Your task to perform on an android device: open app "eBay: The shopping marketplace" Image 0: 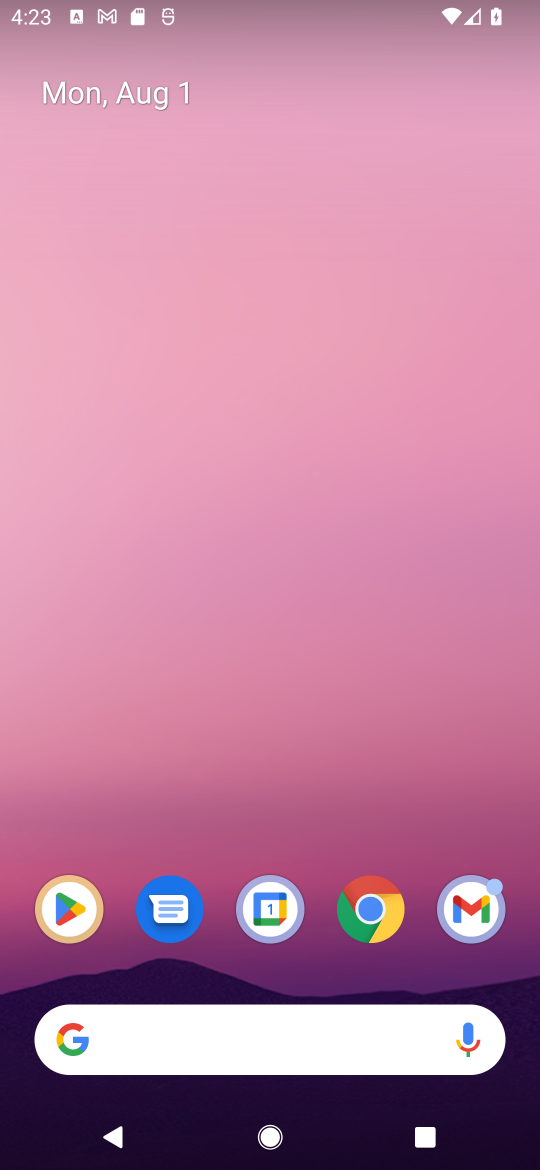
Step 0: click (74, 902)
Your task to perform on an android device: open app "eBay: The shopping marketplace" Image 1: 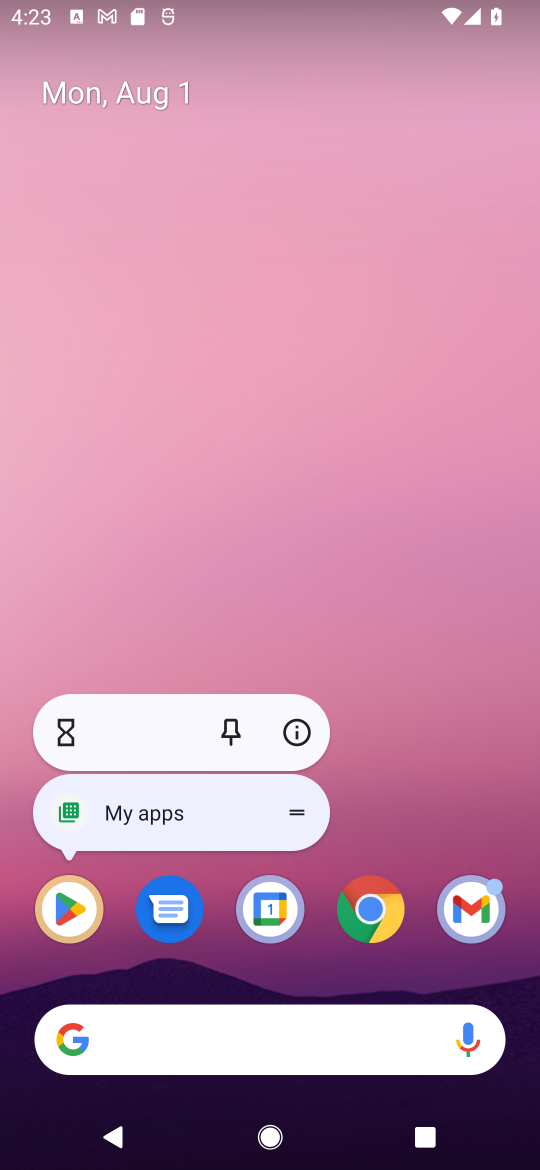
Step 1: click (72, 916)
Your task to perform on an android device: open app "eBay: The shopping marketplace" Image 2: 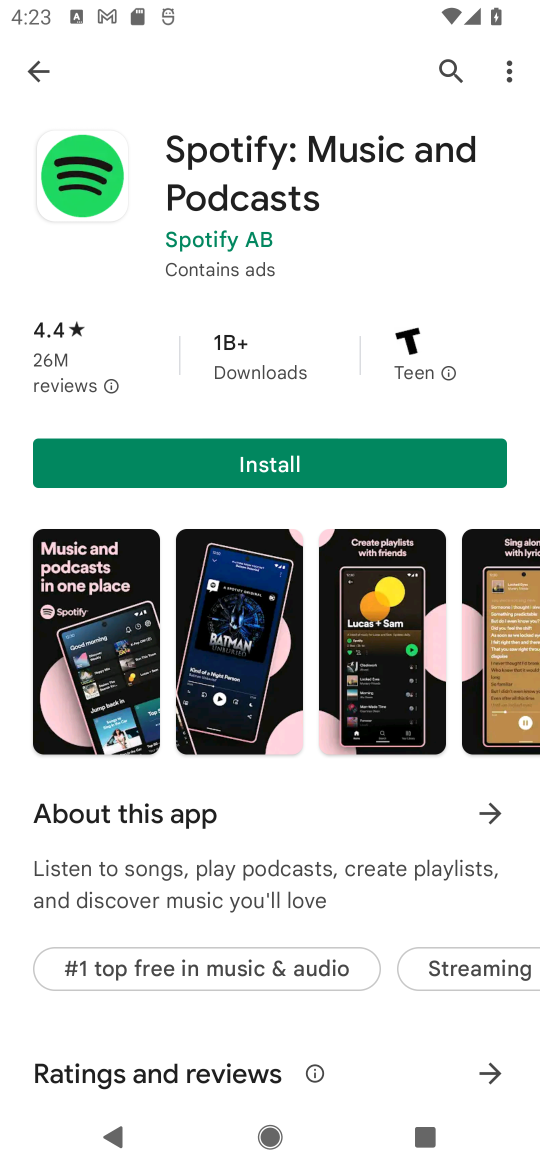
Step 2: click (38, 65)
Your task to perform on an android device: open app "eBay: The shopping marketplace" Image 3: 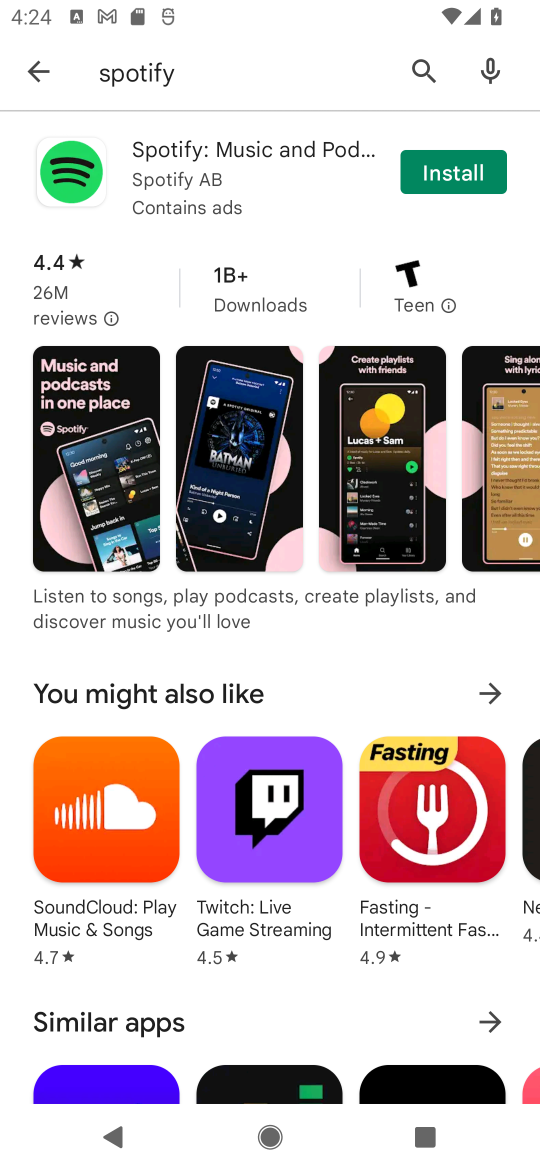
Step 3: click (252, 74)
Your task to perform on an android device: open app "eBay: The shopping marketplace" Image 4: 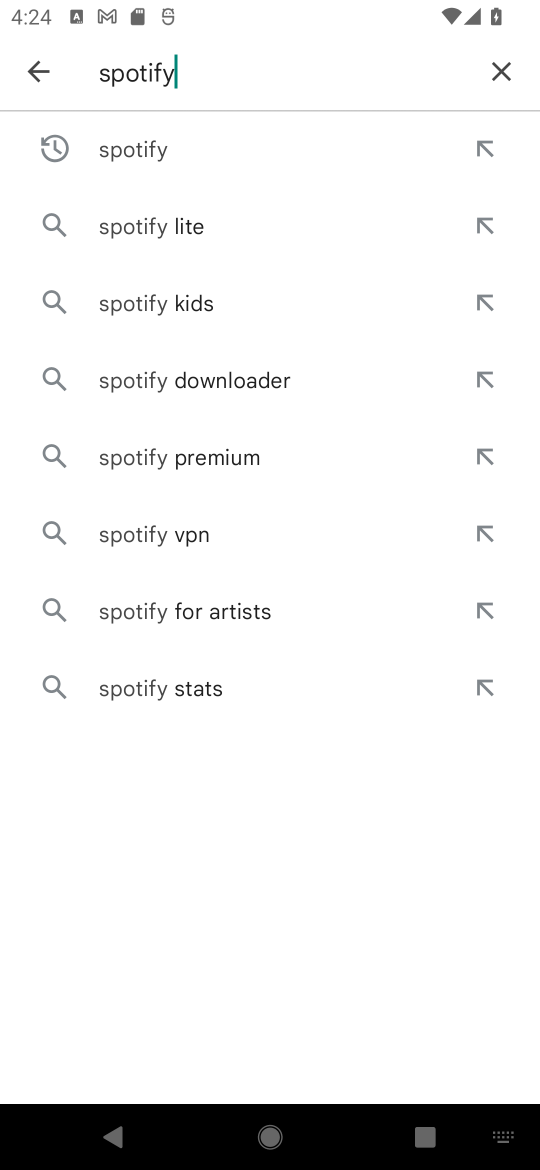
Step 4: click (498, 70)
Your task to perform on an android device: open app "eBay: The shopping marketplace" Image 5: 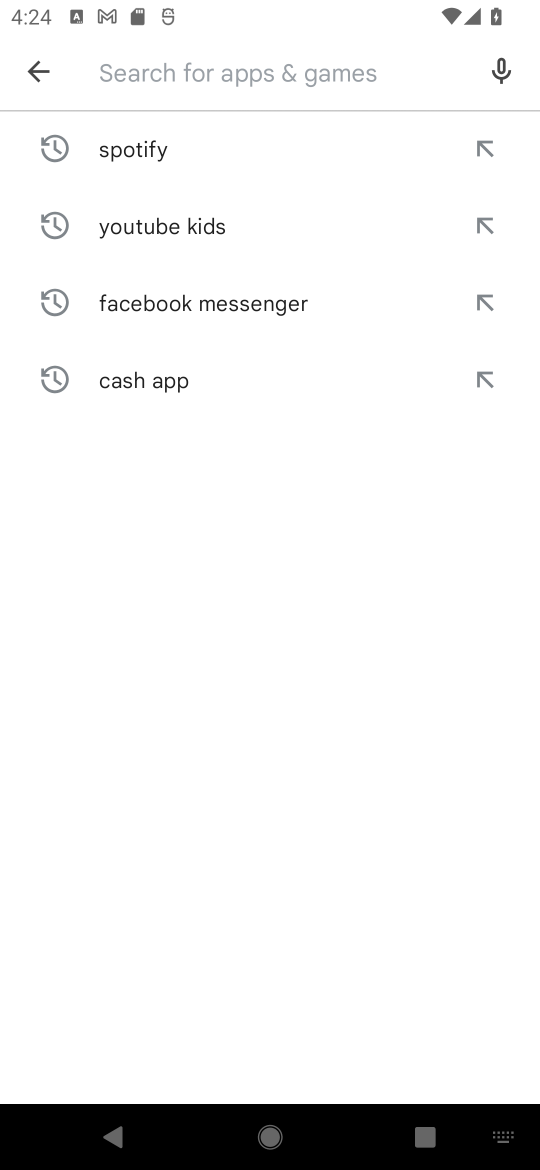
Step 5: type "eBay"
Your task to perform on an android device: open app "eBay: The shopping marketplace" Image 6: 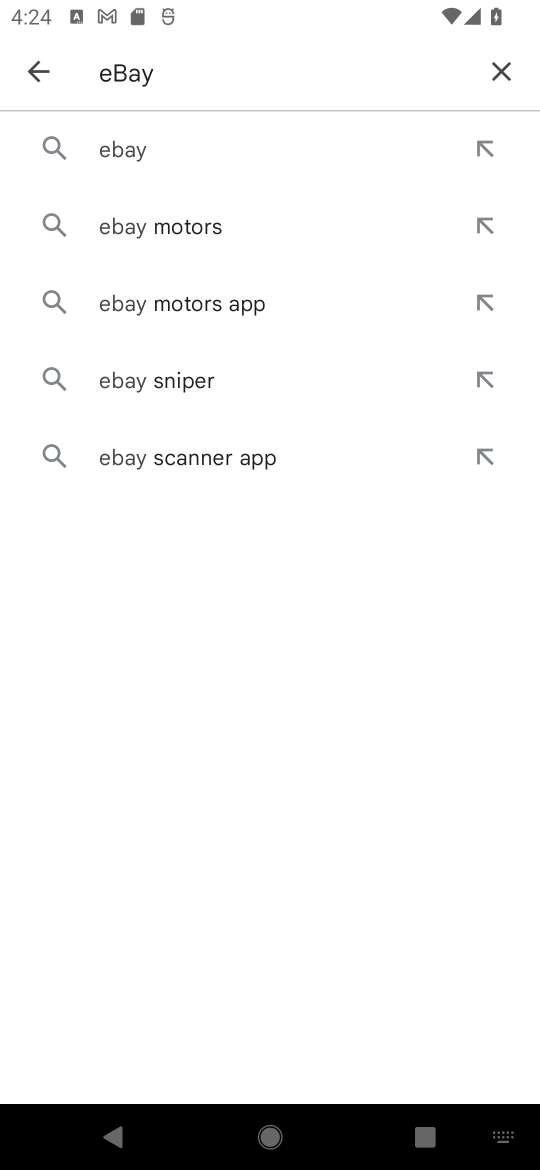
Step 6: click (174, 141)
Your task to perform on an android device: open app "eBay: The shopping marketplace" Image 7: 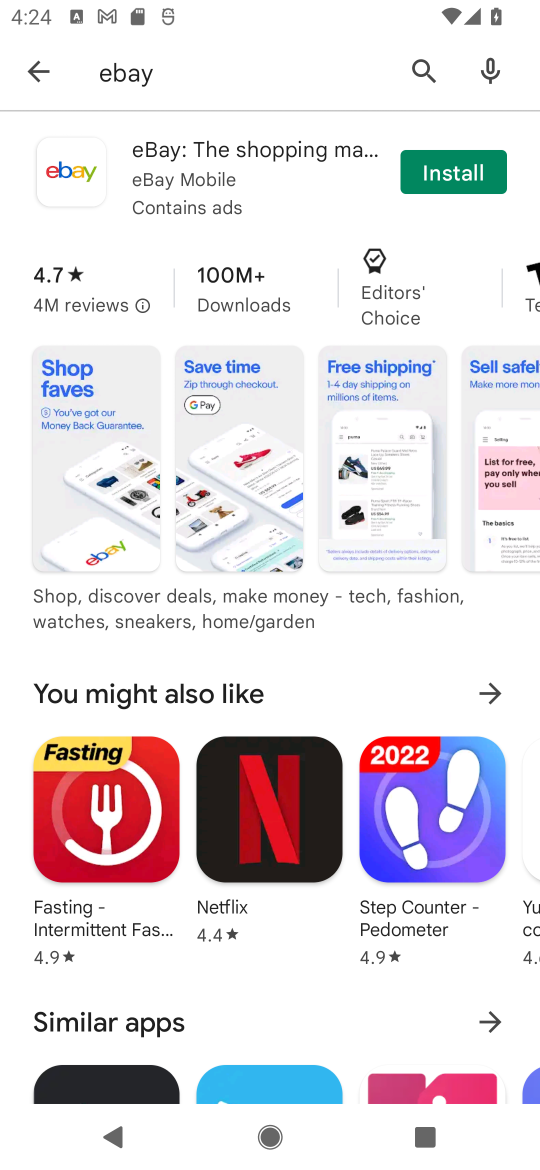
Step 7: task complete